Your task to perform on an android device: show emergency info Image 0: 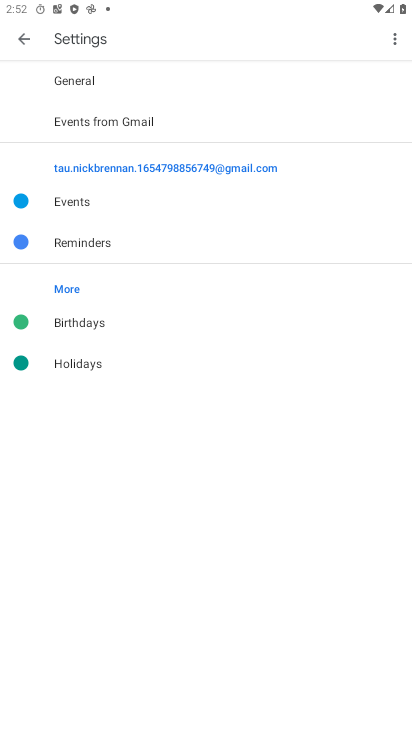
Step 0: press home button
Your task to perform on an android device: show emergency info Image 1: 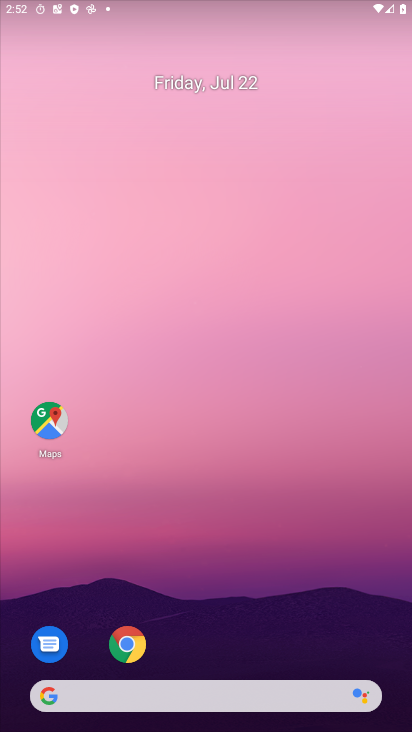
Step 1: drag from (257, 677) to (195, 147)
Your task to perform on an android device: show emergency info Image 2: 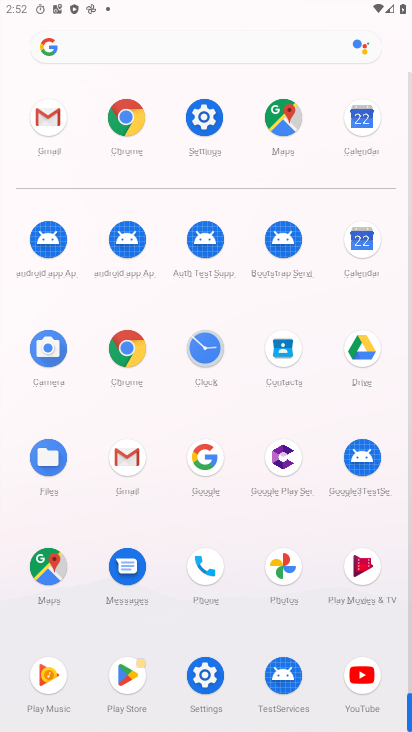
Step 2: click (199, 145)
Your task to perform on an android device: show emergency info Image 3: 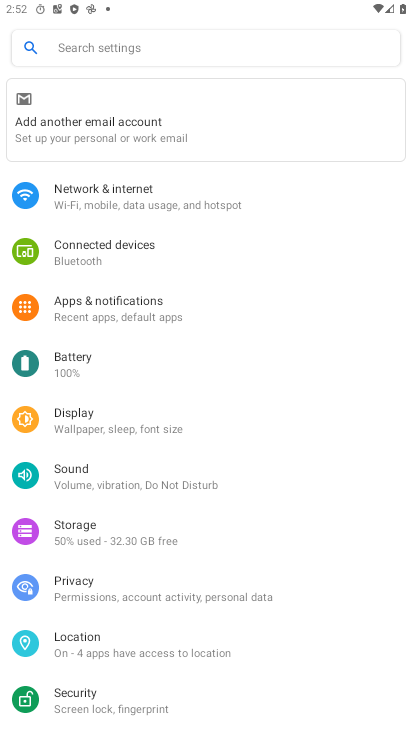
Step 3: drag from (193, 537) to (203, 194)
Your task to perform on an android device: show emergency info Image 4: 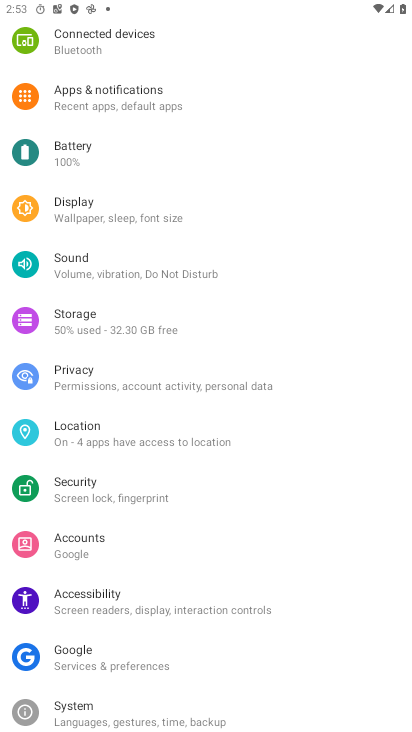
Step 4: drag from (180, 578) to (174, 107)
Your task to perform on an android device: show emergency info Image 5: 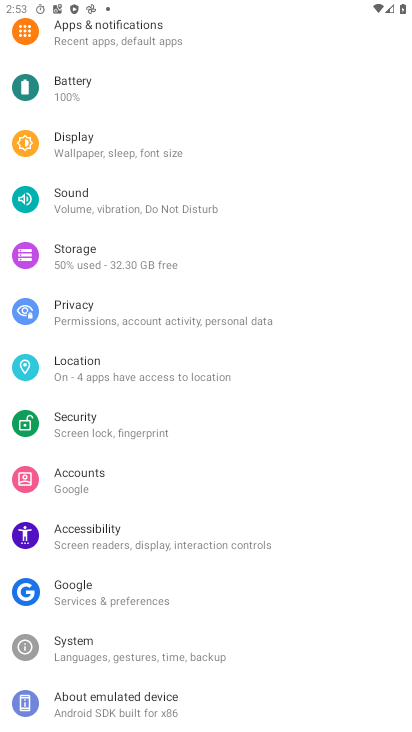
Step 5: click (192, 709)
Your task to perform on an android device: show emergency info Image 6: 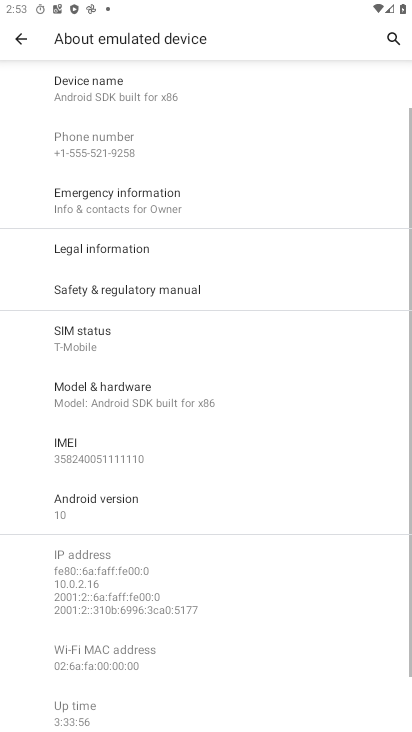
Step 6: click (92, 205)
Your task to perform on an android device: show emergency info Image 7: 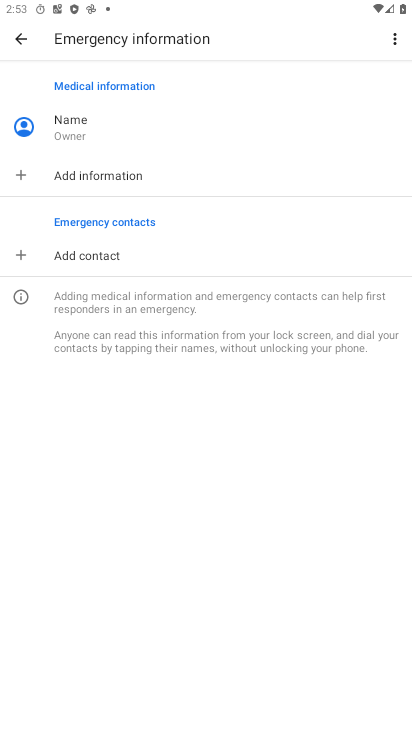
Step 7: task complete